Your task to perform on an android device: Open the web browser Image 0: 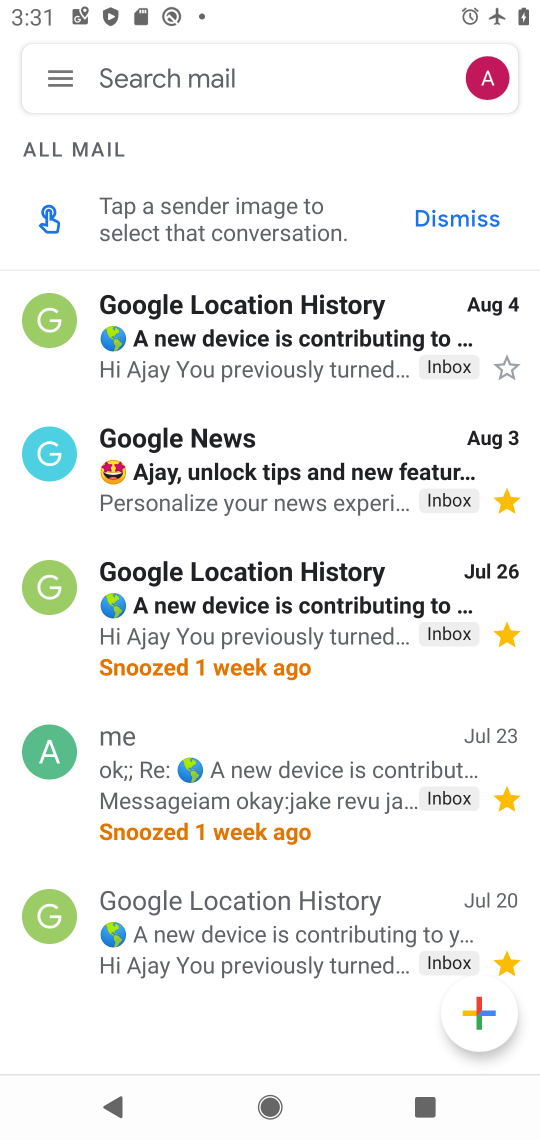
Step 0: press back button
Your task to perform on an android device: Open the web browser Image 1: 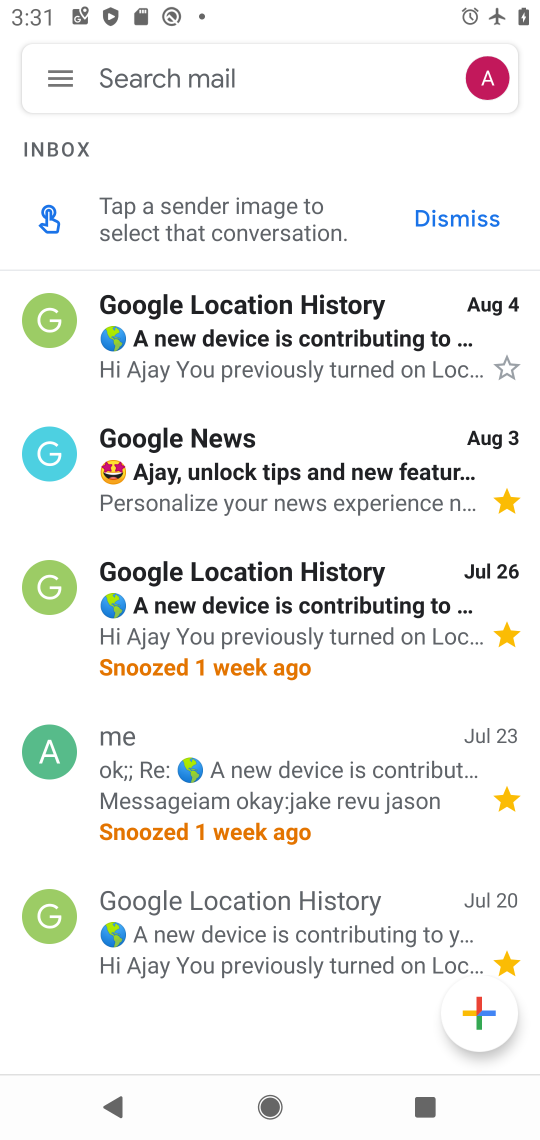
Step 1: press back button
Your task to perform on an android device: Open the web browser Image 2: 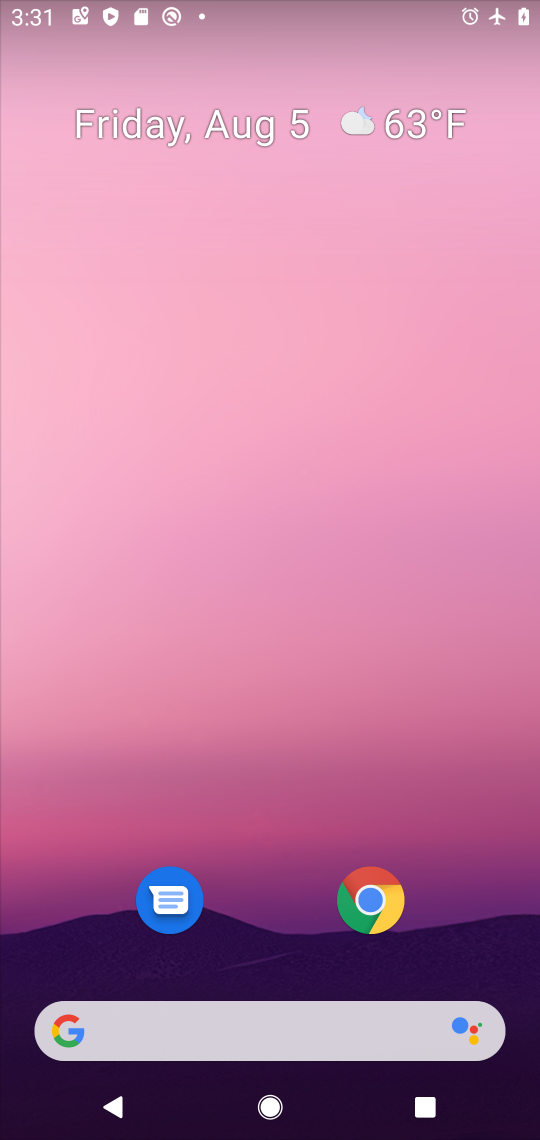
Step 2: click (370, 900)
Your task to perform on an android device: Open the web browser Image 3: 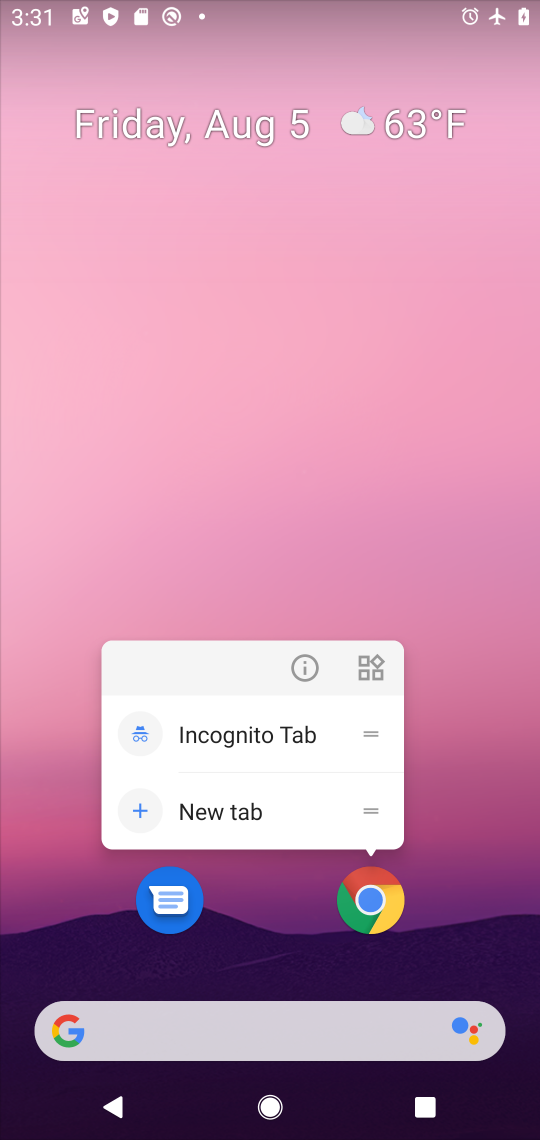
Step 3: click (380, 901)
Your task to perform on an android device: Open the web browser Image 4: 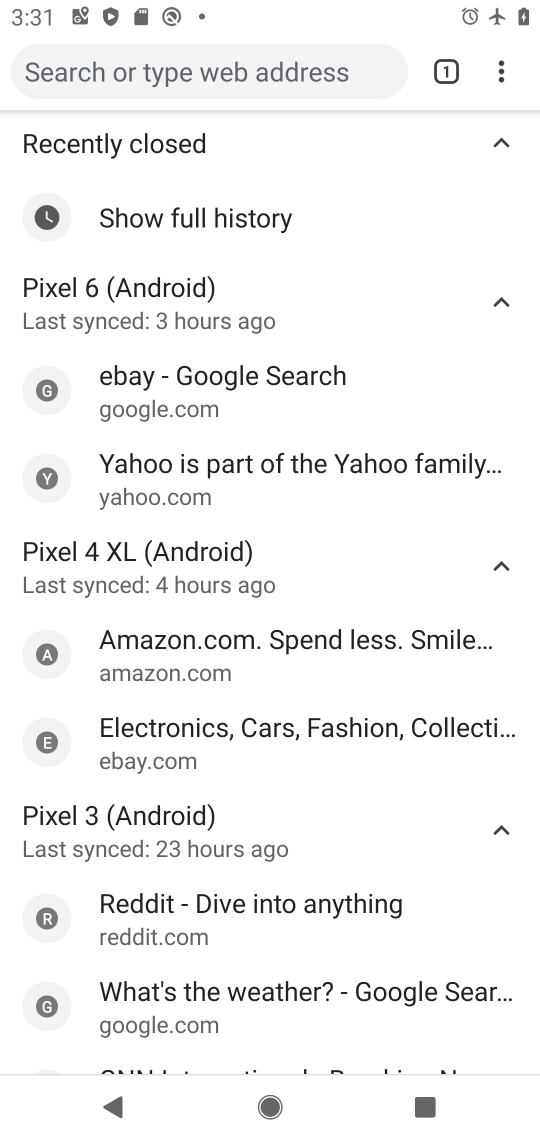
Step 4: task complete